Your task to perform on an android device: turn off translation in the chrome app Image 0: 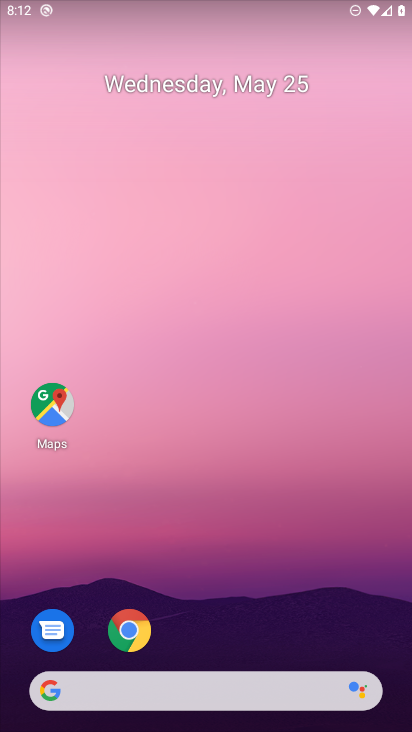
Step 0: click (139, 634)
Your task to perform on an android device: turn off translation in the chrome app Image 1: 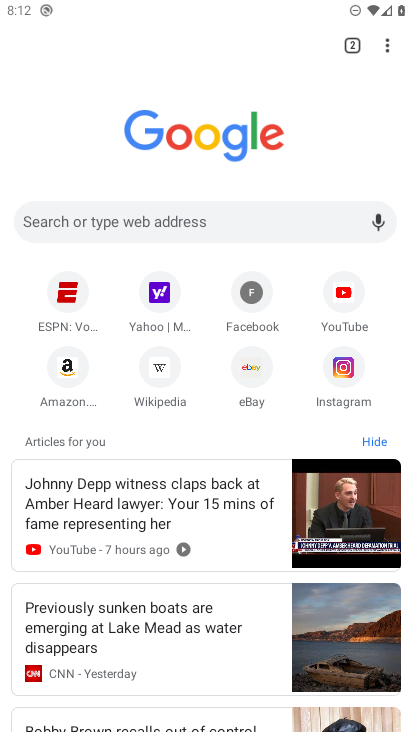
Step 1: click (391, 47)
Your task to perform on an android device: turn off translation in the chrome app Image 2: 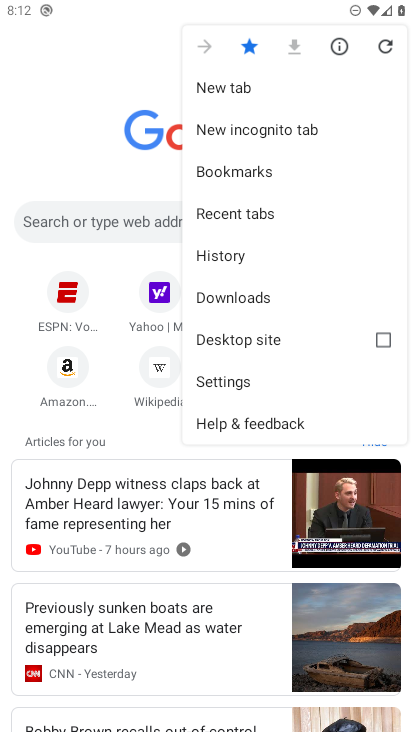
Step 2: click (246, 376)
Your task to perform on an android device: turn off translation in the chrome app Image 3: 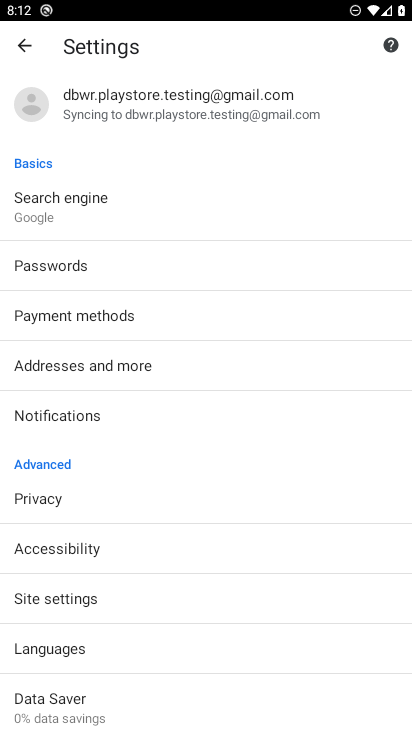
Step 3: click (76, 644)
Your task to perform on an android device: turn off translation in the chrome app Image 4: 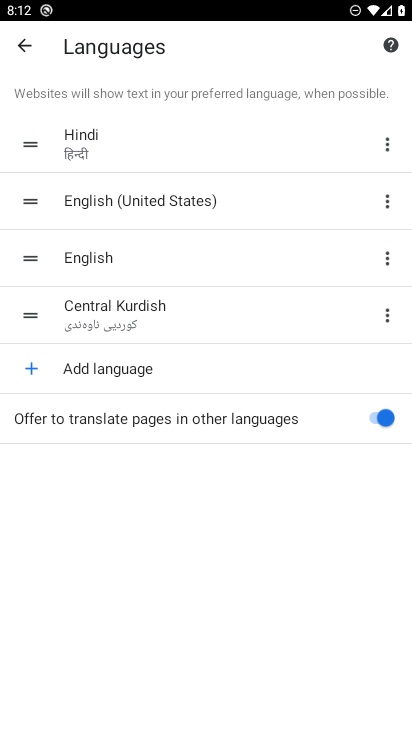
Step 4: click (373, 424)
Your task to perform on an android device: turn off translation in the chrome app Image 5: 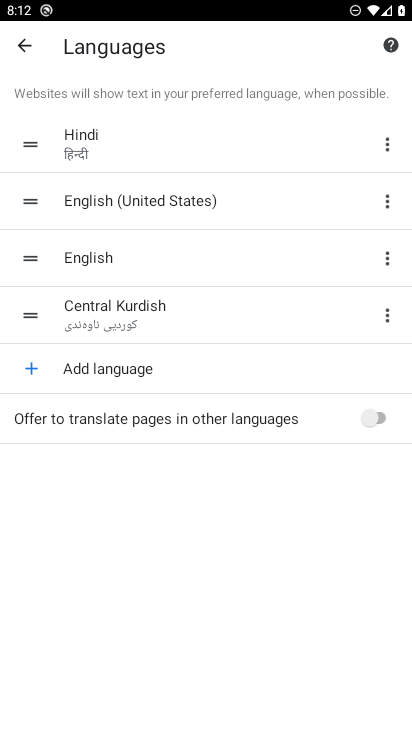
Step 5: task complete